Your task to perform on an android device: turn on notifications settings in the gmail app Image 0: 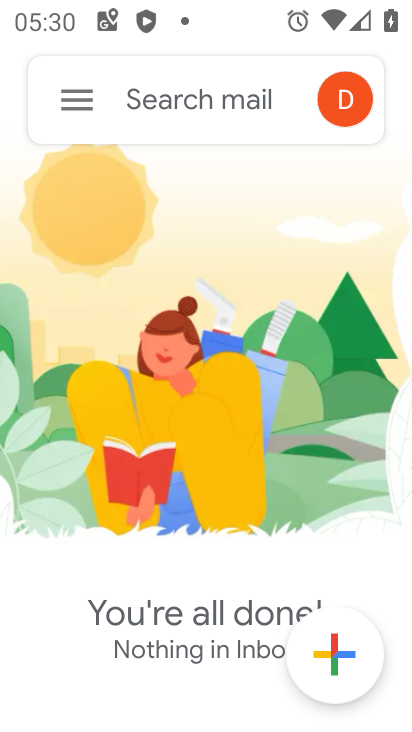
Step 0: click (64, 99)
Your task to perform on an android device: turn on notifications settings in the gmail app Image 1: 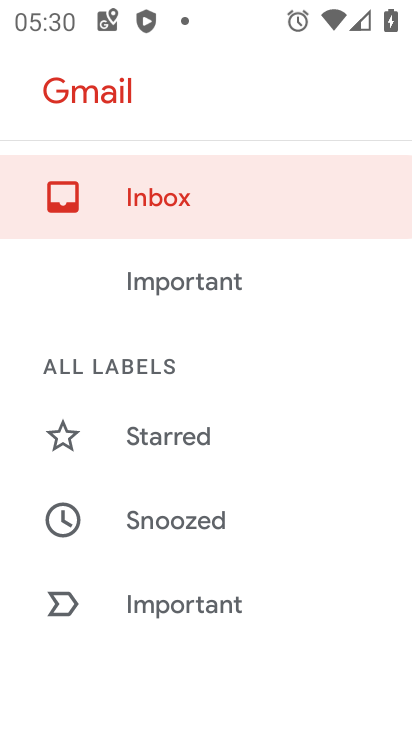
Step 1: drag from (215, 586) to (212, 519)
Your task to perform on an android device: turn on notifications settings in the gmail app Image 2: 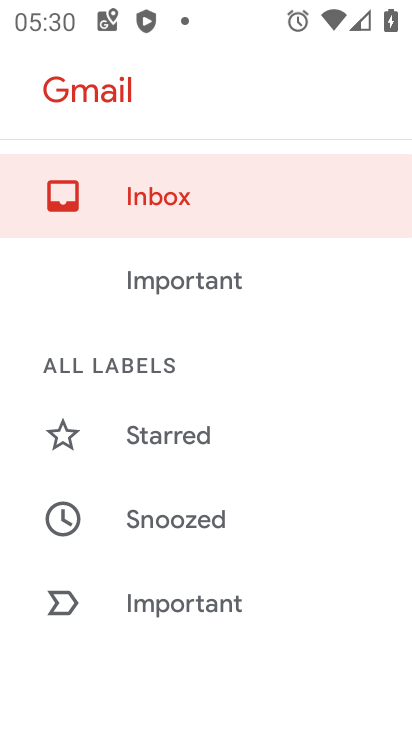
Step 2: drag from (210, 394) to (210, 134)
Your task to perform on an android device: turn on notifications settings in the gmail app Image 3: 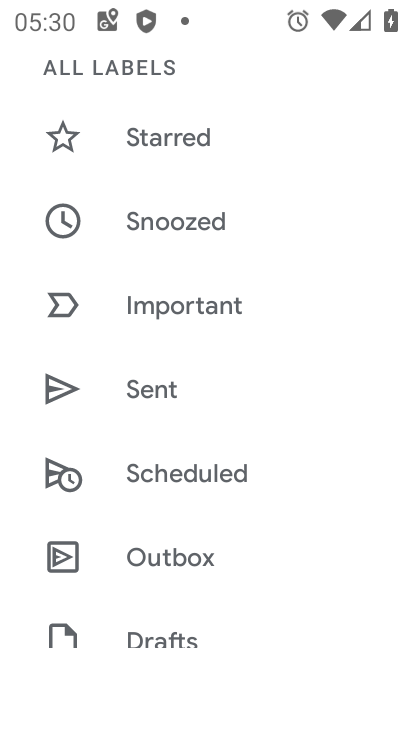
Step 3: drag from (212, 585) to (239, 106)
Your task to perform on an android device: turn on notifications settings in the gmail app Image 4: 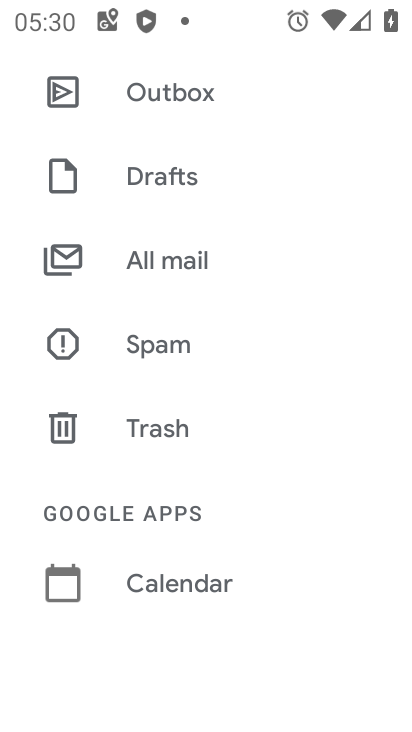
Step 4: drag from (232, 581) to (265, 163)
Your task to perform on an android device: turn on notifications settings in the gmail app Image 5: 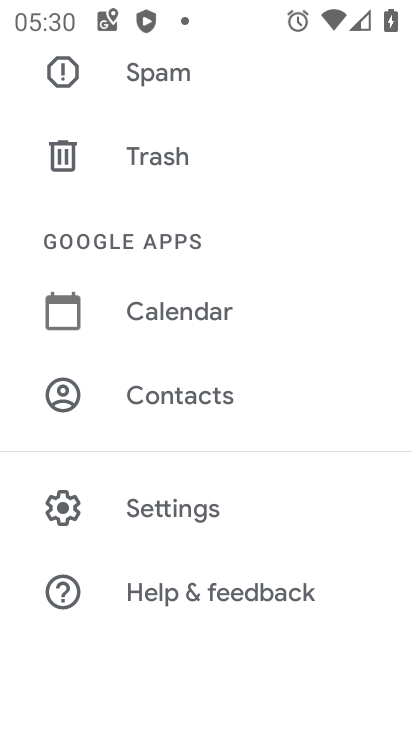
Step 5: click (225, 508)
Your task to perform on an android device: turn on notifications settings in the gmail app Image 6: 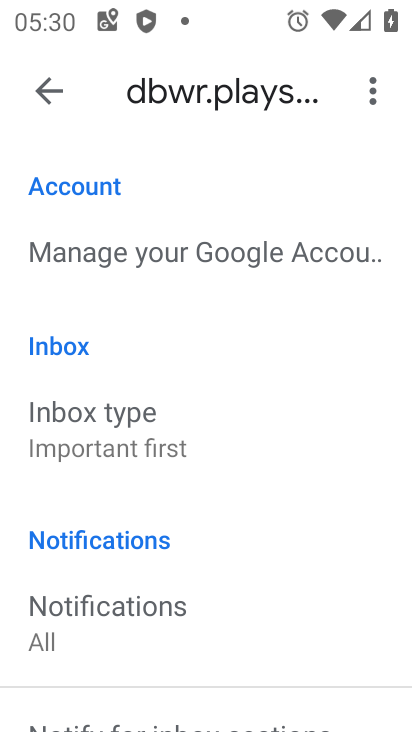
Step 6: click (44, 89)
Your task to perform on an android device: turn on notifications settings in the gmail app Image 7: 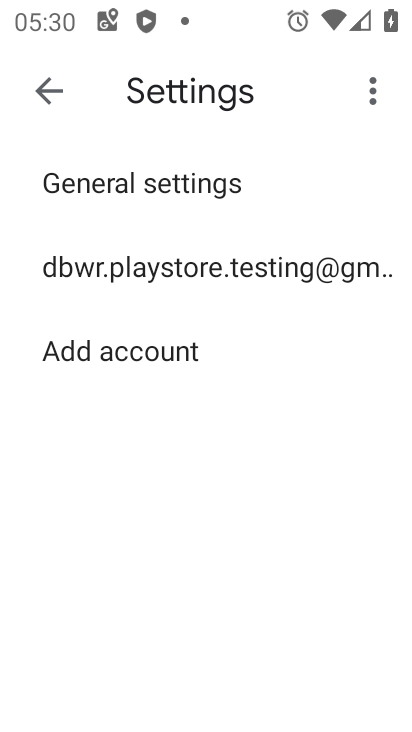
Step 7: click (159, 186)
Your task to perform on an android device: turn on notifications settings in the gmail app Image 8: 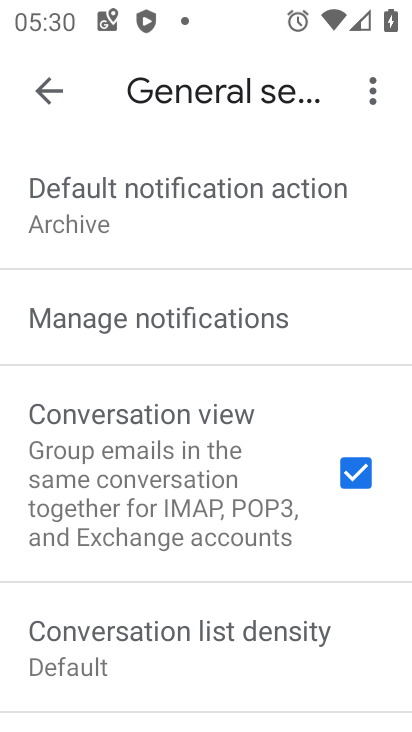
Step 8: click (205, 306)
Your task to perform on an android device: turn on notifications settings in the gmail app Image 9: 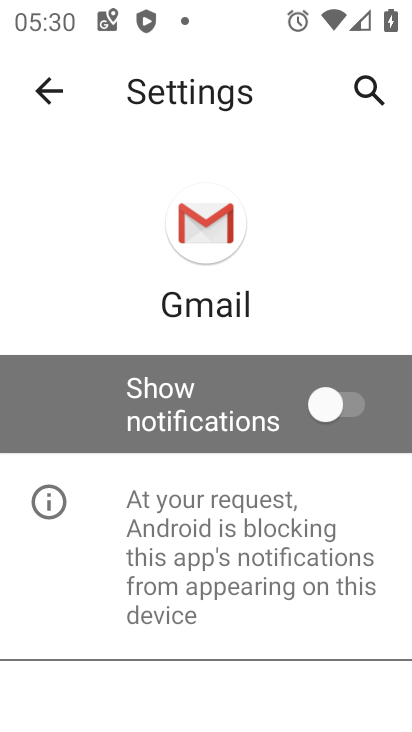
Step 9: click (350, 403)
Your task to perform on an android device: turn on notifications settings in the gmail app Image 10: 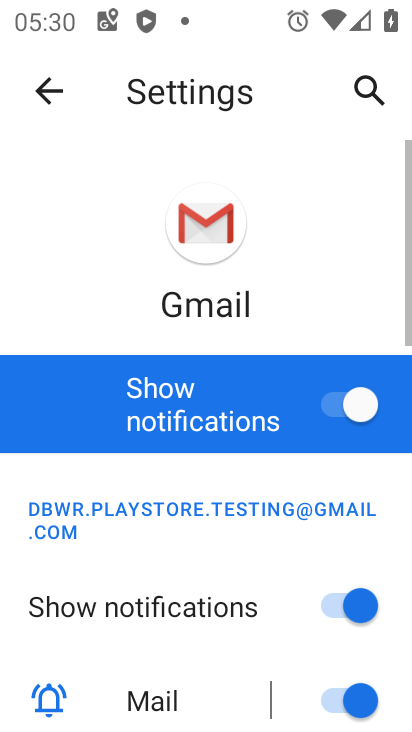
Step 10: task complete